Your task to perform on an android device: turn off priority inbox in the gmail app Image 0: 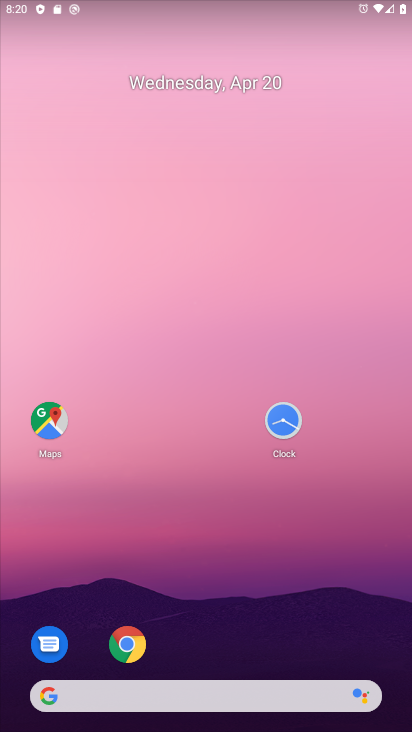
Step 0: drag from (282, 661) to (224, 135)
Your task to perform on an android device: turn off priority inbox in the gmail app Image 1: 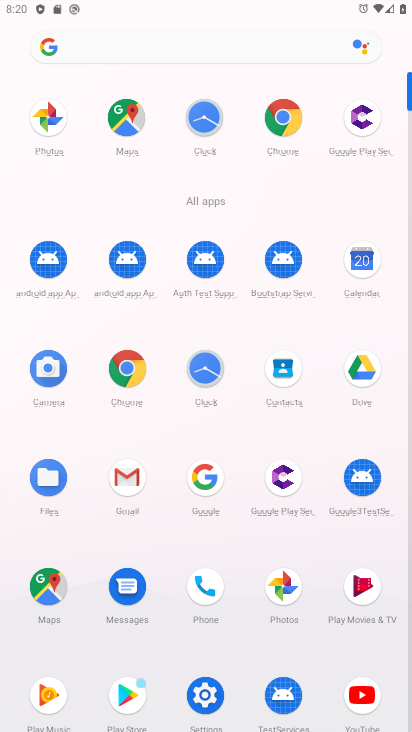
Step 1: click (125, 483)
Your task to perform on an android device: turn off priority inbox in the gmail app Image 2: 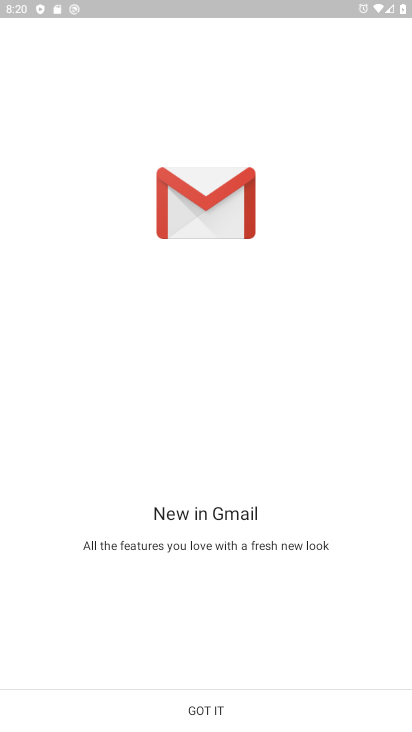
Step 2: click (228, 711)
Your task to perform on an android device: turn off priority inbox in the gmail app Image 3: 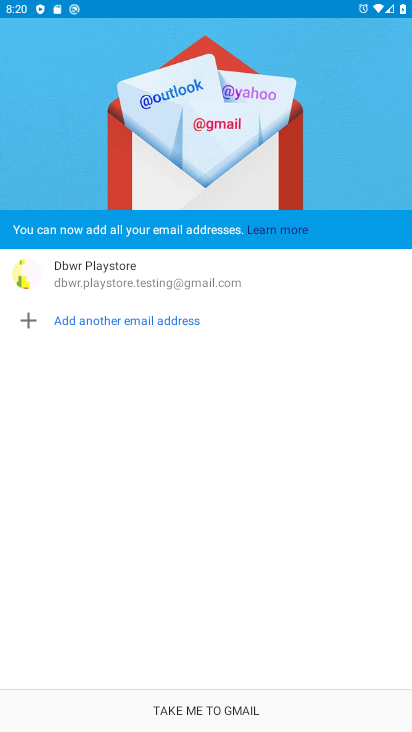
Step 3: click (228, 709)
Your task to perform on an android device: turn off priority inbox in the gmail app Image 4: 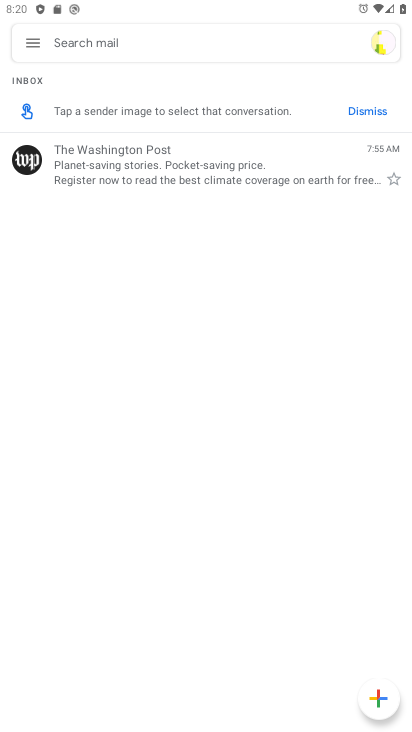
Step 4: click (30, 37)
Your task to perform on an android device: turn off priority inbox in the gmail app Image 5: 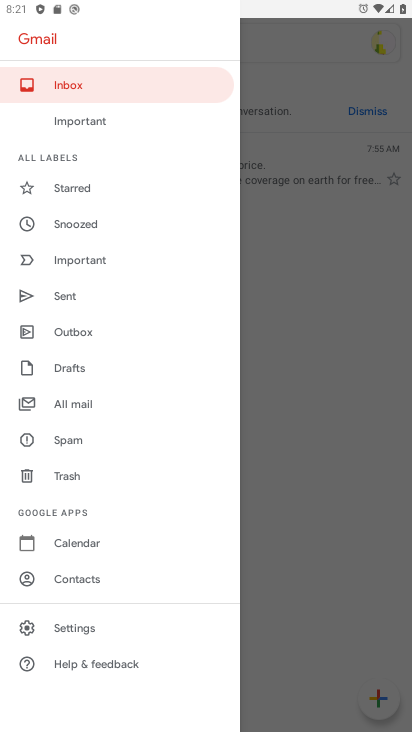
Step 5: drag from (57, 492) to (47, 51)
Your task to perform on an android device: turn off priority inbox in the gmail app Image 6: 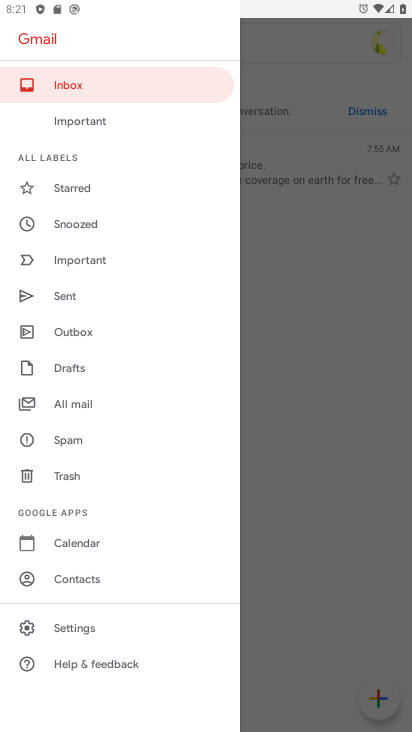
Step 6: click (101, 622)
Your task to perform on an android device: turn off priority inbox in the gmail app Image 7: 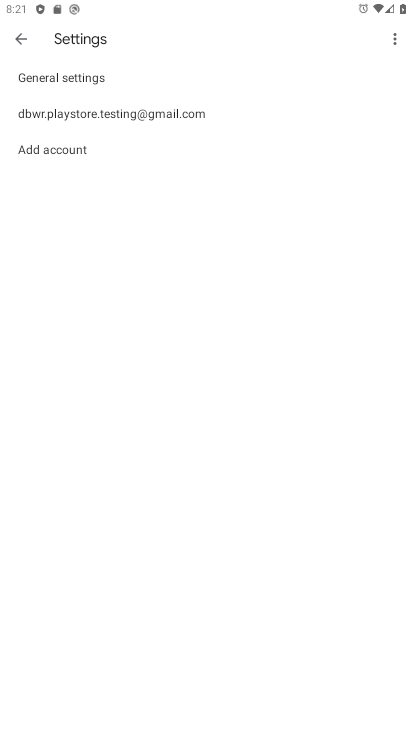
Step 7: click (105, 118)
Your task to perform on an android device: turn off priority inbox in the gmail app Image 8: 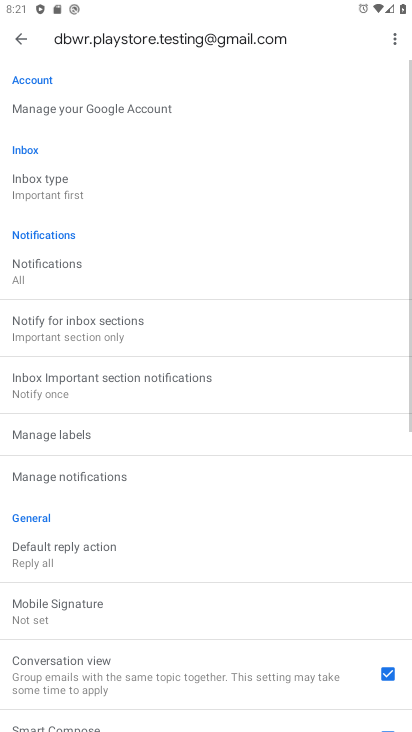
Step 8: click (79, 190)
Your task to perform on an android device: turn off priority inbox in the gmail app Image 9: 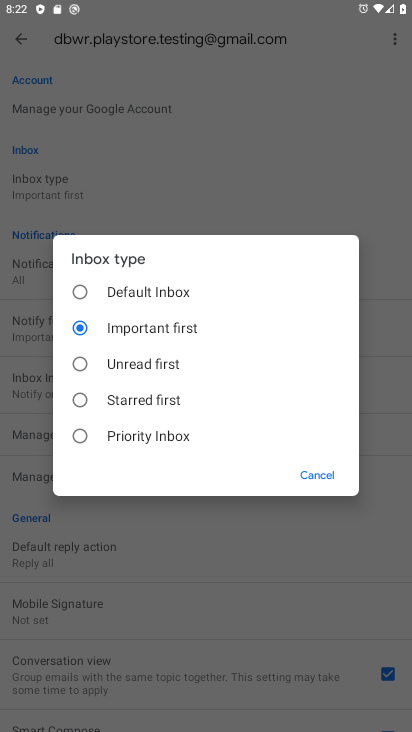
Step 9: click (285, 472)
Your task to perform on an android device: turn off priority inbox in the gmail app Image 10: 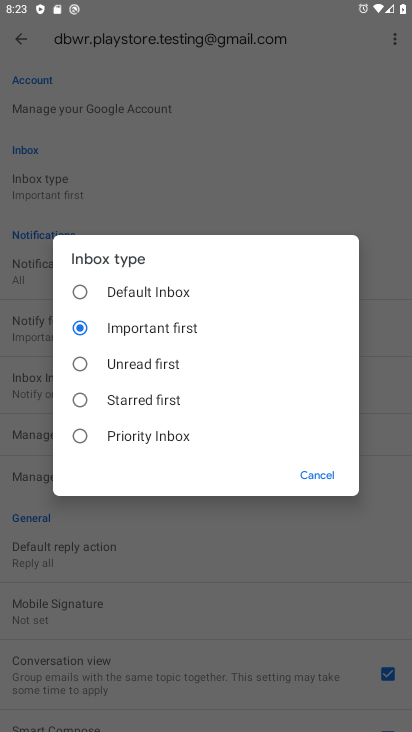
Step 10: click (227, 567)
Your task to perform on an android device: turn off priority inbox in the gmail app Image 11: 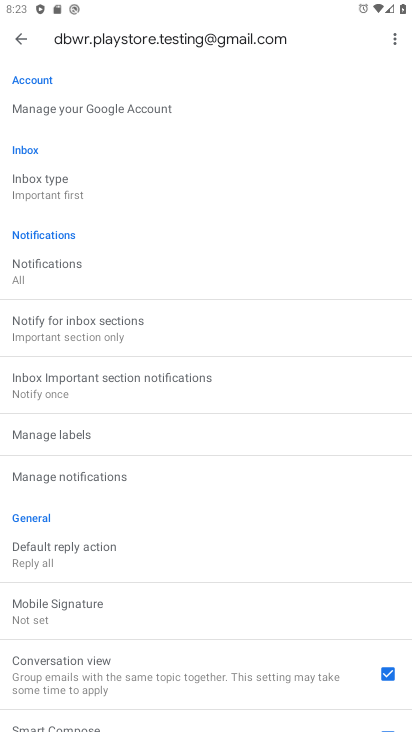
Step 11: task complete